Your task to perform on an android device: make emails show in primary in the gmail app Image 0: 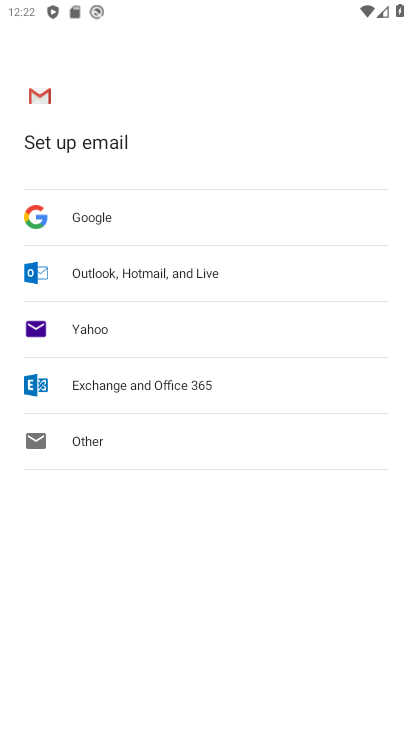
Step 0: press home button
Your task to perform on an android device: make emails show in primary in the gmail app Image 1: 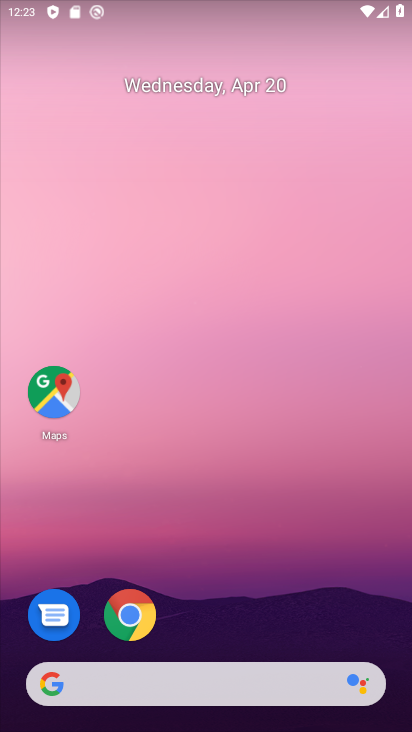
Step 1: drag from (215, 507) to (239, 74)
Your task to perform on an android device: make emails show in primary in the gmail app Image 2: 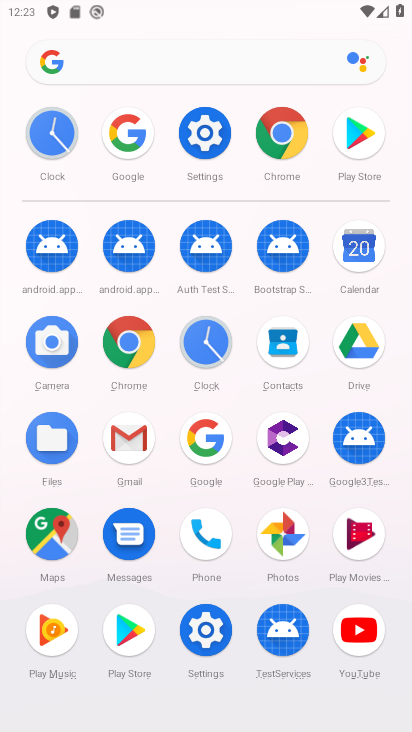
Step 2: click (131, 430)
Your task to perform on an android device: make emails show in primary in the gmail app Image 3: 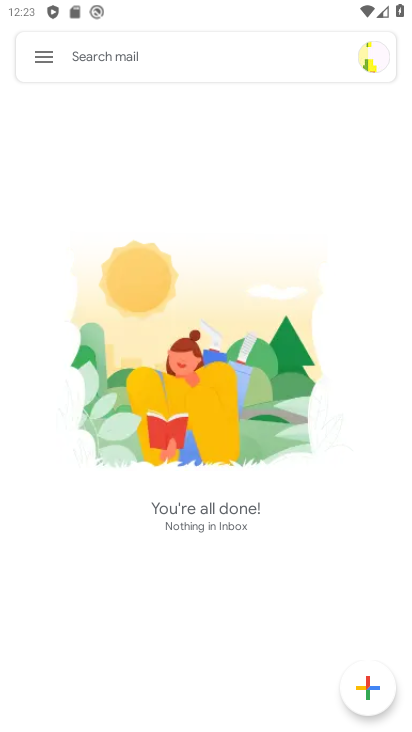
Step 3: click (41, 53)
Your task to perform on an android device: make emails show in primary in the gmail app Image 4: 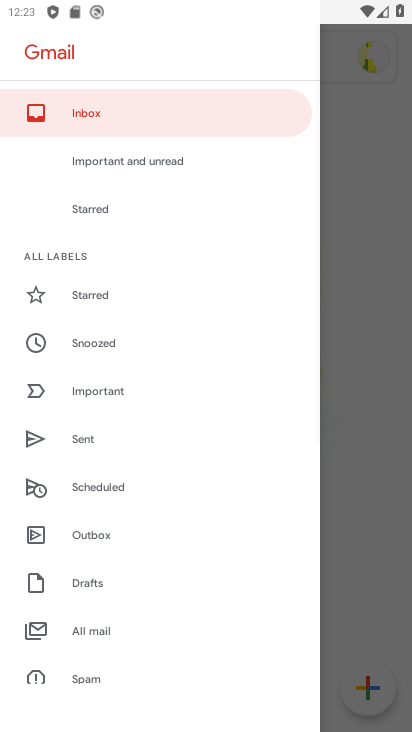
Step 4: drag from (141, 580) to (156, 206)
Your task to perform on an android device: make emails show in primary in the gmail app Image 5: 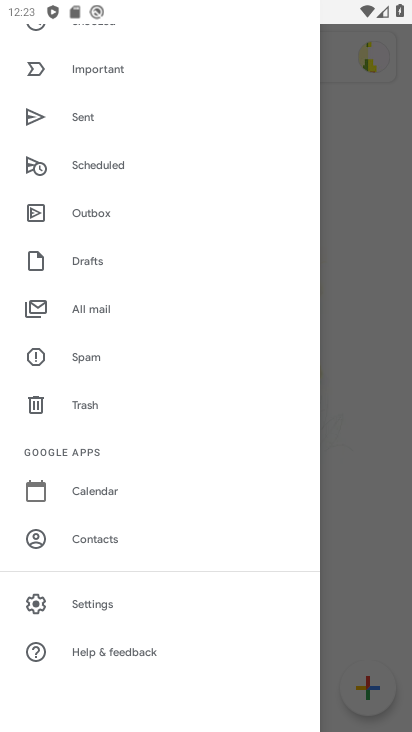
Step 5: click (86, 601)
Your task to perform on an android device: make emails show in primary in the gmail app Image 6: 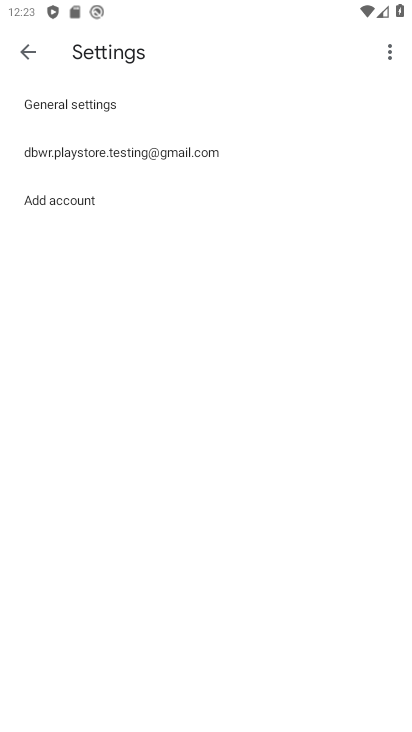
Step 6: click (110, 153)
Your task to perform on an android device: make emails show in primary in the gmail app Image 7: 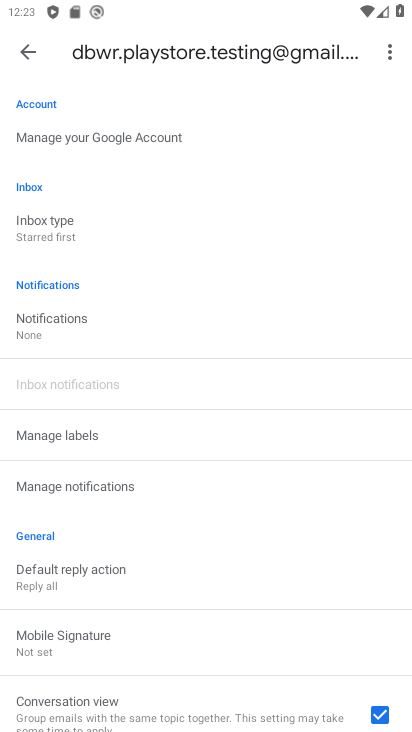
Step 7: click (59, 230)
Your task to perform on an android device: make emails show in primary in the gmail app Image 8: 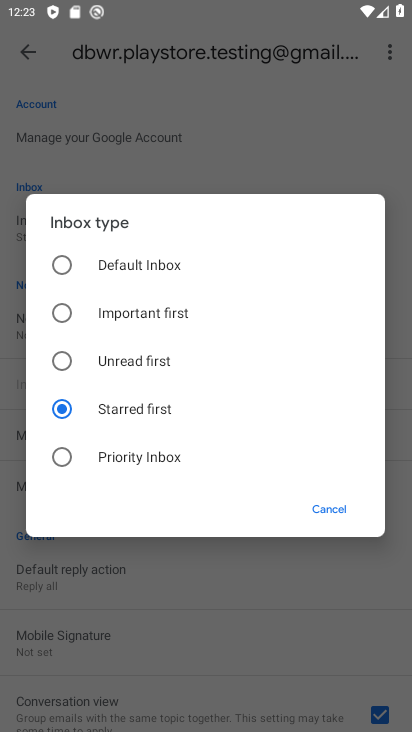
Step 8: click (64, 267)
Your task to perform on an android device: make emails show in primary in the gmail app Image 9: 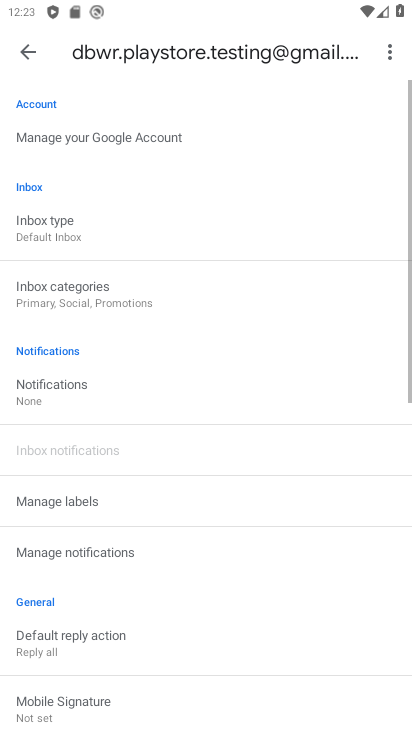
Step 9: click (79, 297)
Your task to perform on an android device: make emails show in primary in the gmail app Image 10: 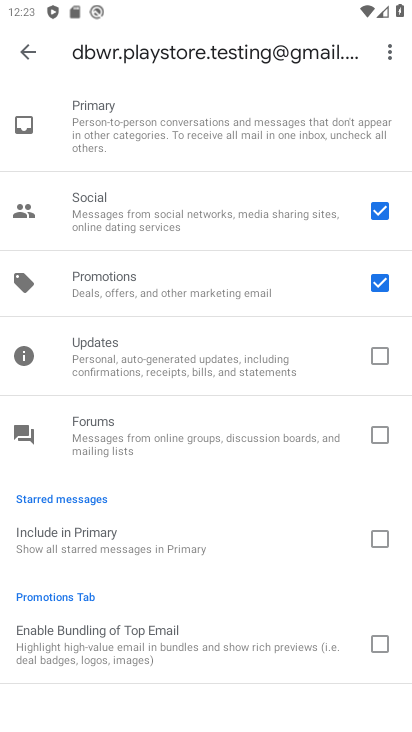
Step 10: click (379, 279)
Your task to perform on an android device: make emails show in primary in the gmail app Image 11: 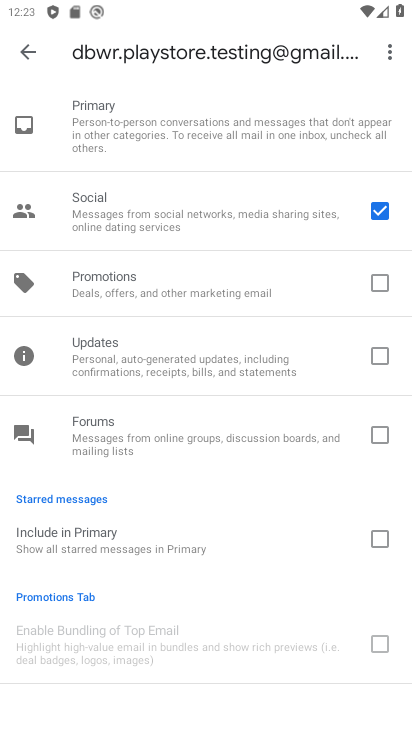
Step 11: click (375, 213)
Your task to perform on an android device: make emails show in primary in the gmail app Image 12: 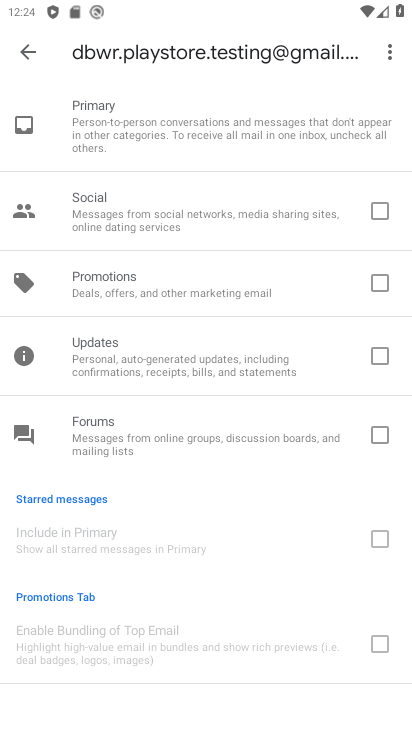
Step 12: task complete